Your task to perform on an android device: Go to ESPN.com Image 0: 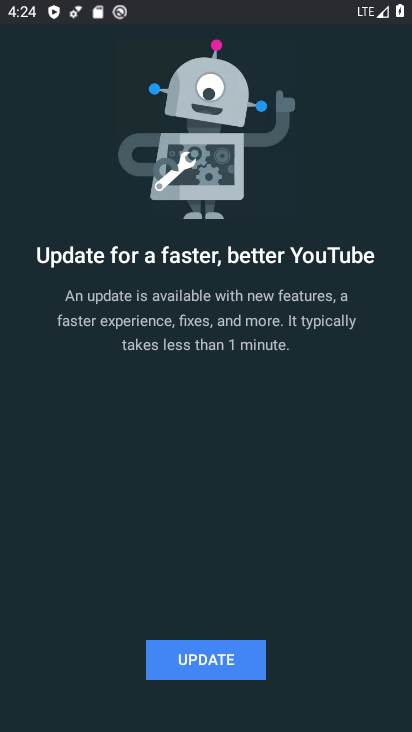
Step 0: press back button
Your task to perform on an android device: Go to ESPN.com Image 1: 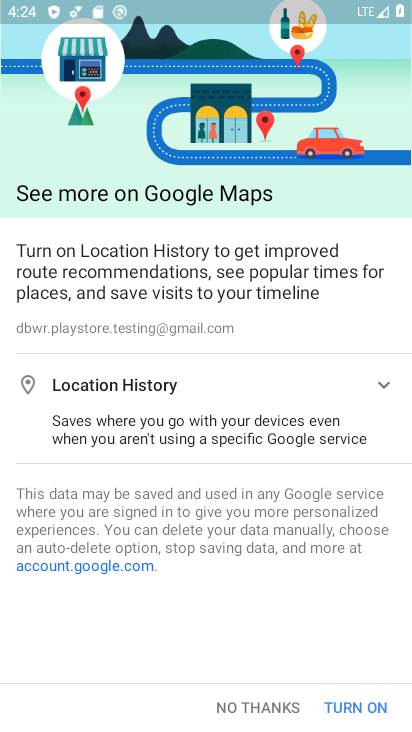
Step 1: press back button
Your task to perform on an android device: Go to ESPN.com Image 2: 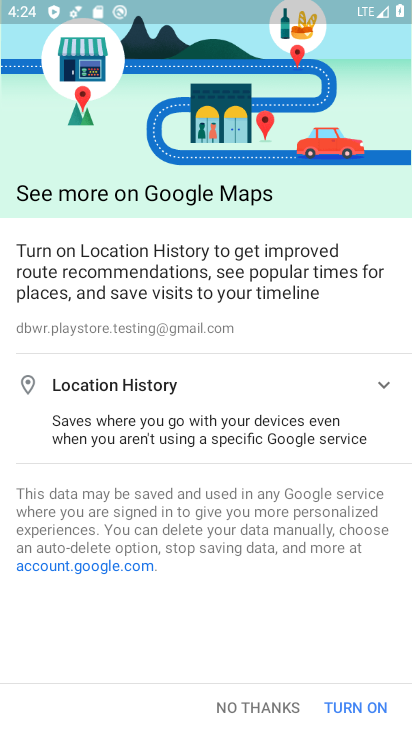
Step 2: press back button
Your task to perform on an android device: Go to ESPN.com Image 3: 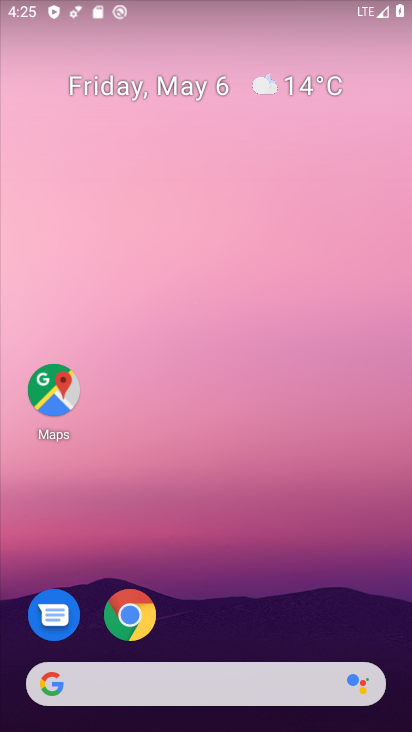
Step 3: press home button
Your task to perform on an android device: Go to ESPN.com Image 4: 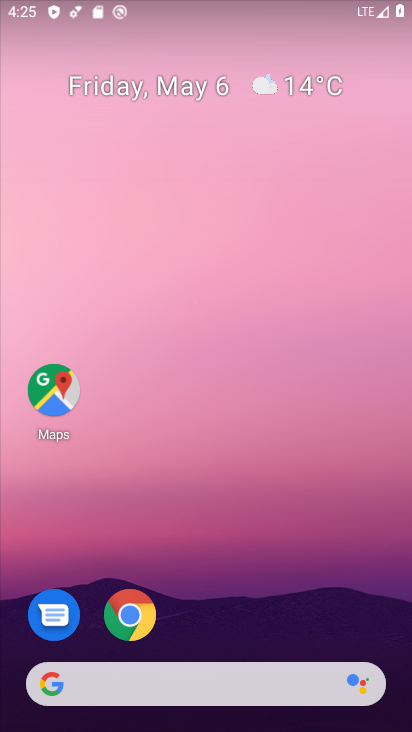
Step 4: click (135, 632)
Your task to perform on an android device: Go to ESPN.com Image 5: 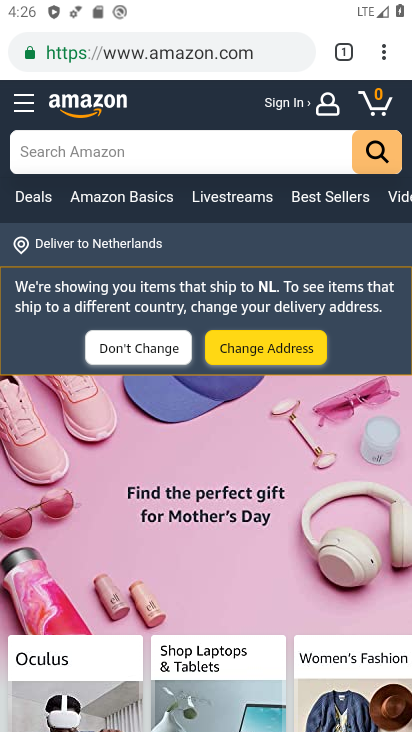
Step 5: click (265, 40)
Your task to perform on an android device: Go to ESPN.com Image 6: 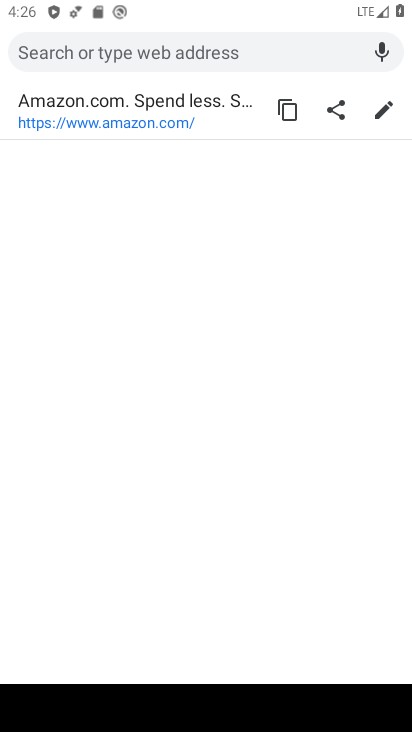
Step 6: type "espn"
Your task to perform on an android device: Go to ESPN.com Image 7: 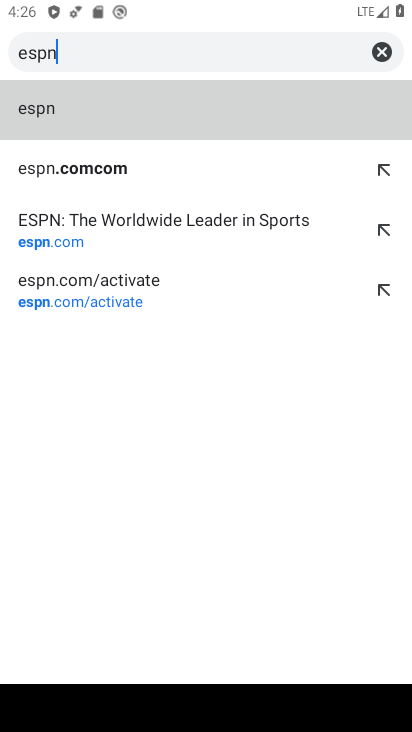
Step 7: click (110, 158)
Your task to perform on an android device: Go to ESPN.com Image 8: 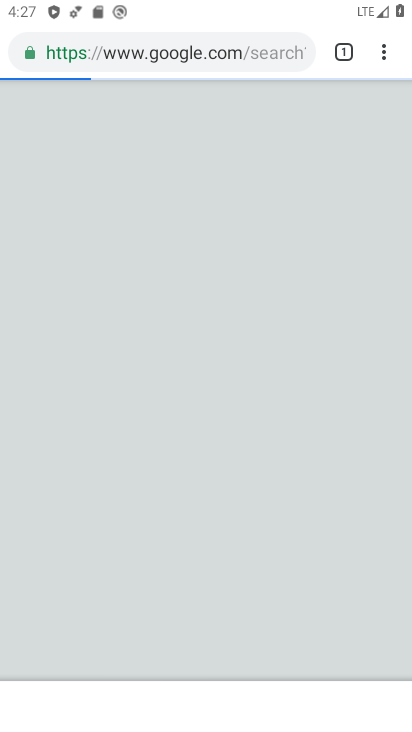
Step 8: task complete